Your task to perform on an android device: Check the weather Image 0: 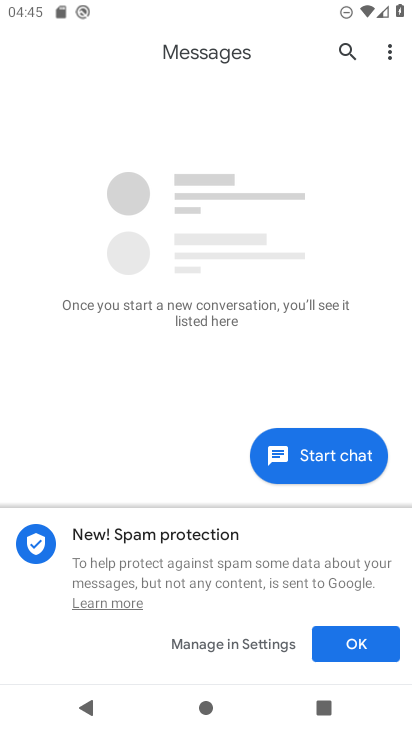
Step 0: press home button
Your task to perform on an android device: Check the weather Image 1: 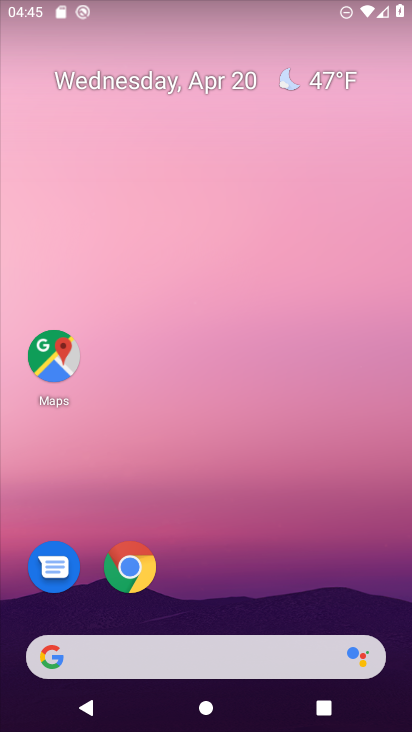
Step 1: click (208, 654)
Your task to perform on an android device: Check the weather Image 2: 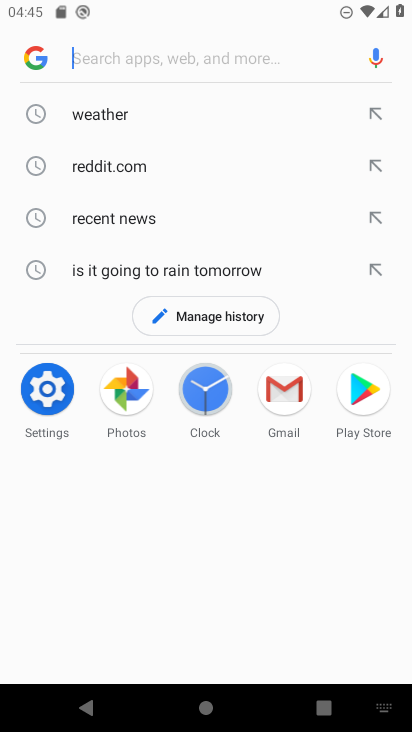
Step 2: click (204, 98)
Your task to perform on an android device: Check the weather Image 3: 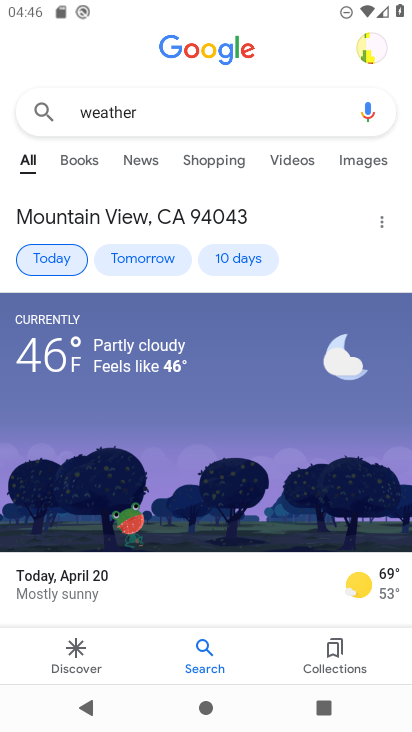
Step 3: task complete